Your task to perform on an android device: empty trash in google photos Image 0: 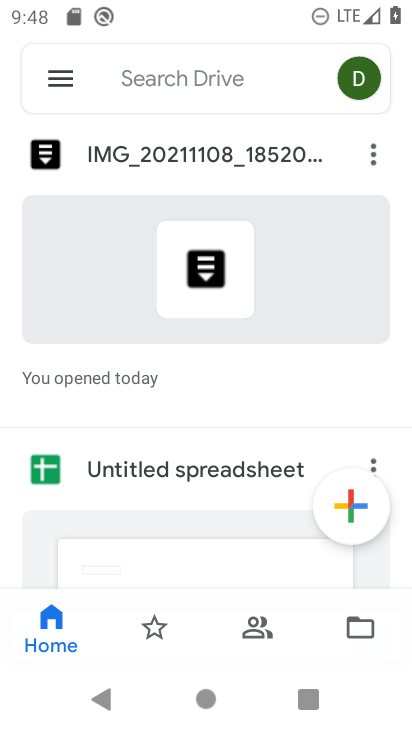
Step 0: press home button
Your task to perform on an android device: empty trash in google photos Image 1: 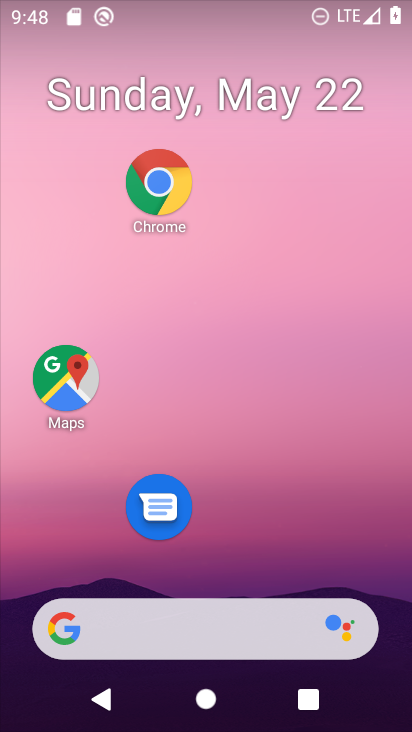
Step 1: drag from (166, 673) to (181, 24)
Your task to perform on an android device: empty trash in google photos Image 2: 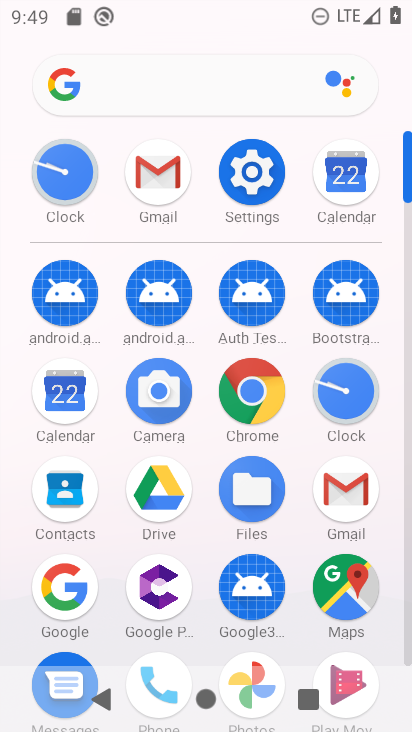
Step 2: click (260, 653)
Your task to perform on an android device: empty trash in google photos Image 3: 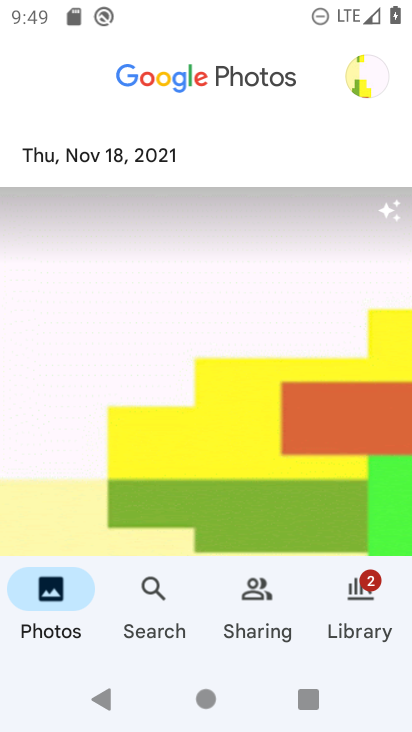
Step 3: click (355, 594)
Your task to perform on an android device: empty trash in google photos Image 4: 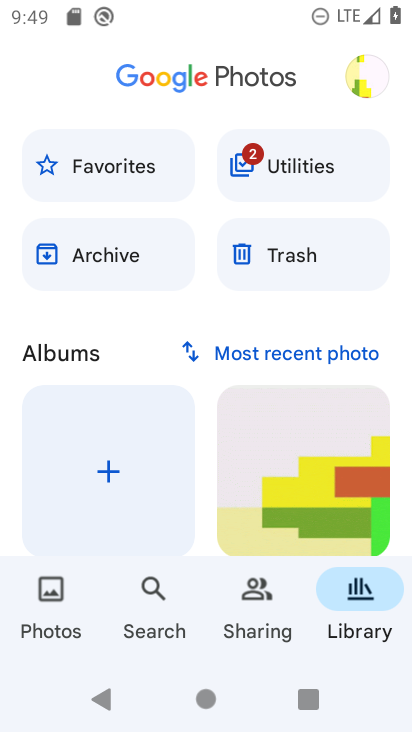
Step 4: click (309, 245)
Your task to perform on an android device: empty trash in google photos Image 5: 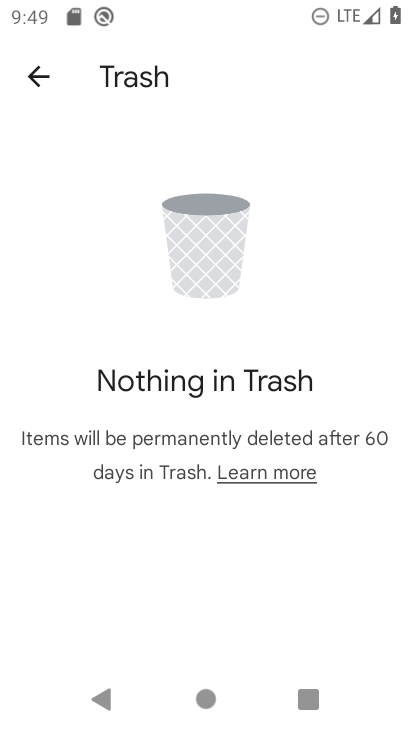
Step 5: task complete